Your task to perform on an android device: turn off priority inbox in the gmail app Image 0: 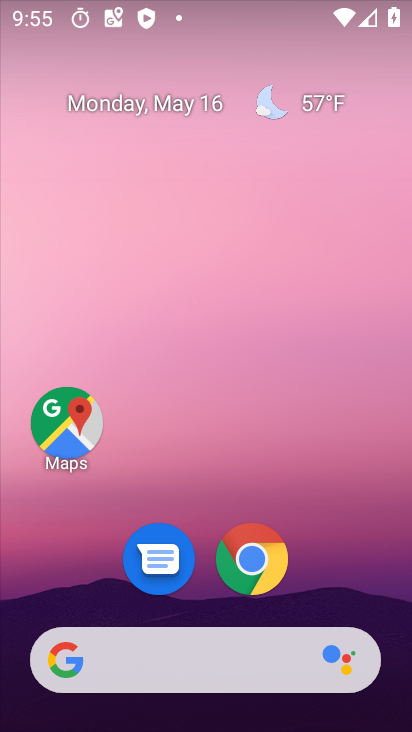
Step 0: drag from (355, 587) to (272, 113)
Your task to perform on an android device: turn off priority inbox in the gmail app Image 1: 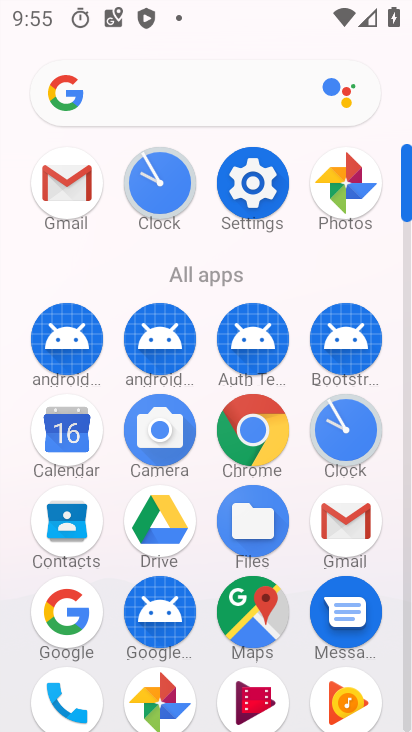
Step 1: click (346, 530)
Your task to perform on an android device: turn off priority inbox in the gmail app Image 2: 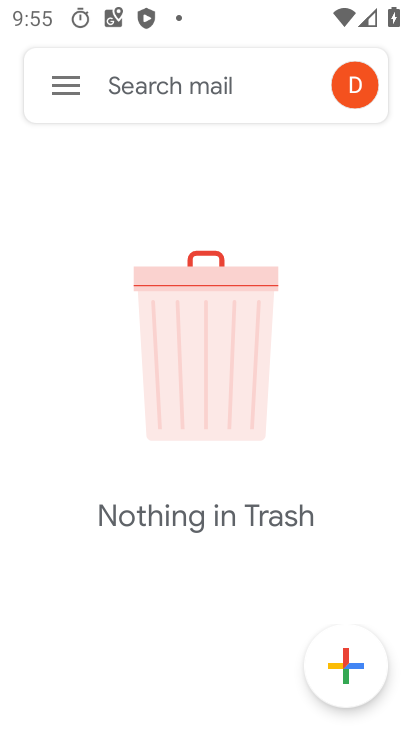
Step 2: click (49, 93)
Your task to perform on an android device: turn off priority inbox in the gmail app Image 3: 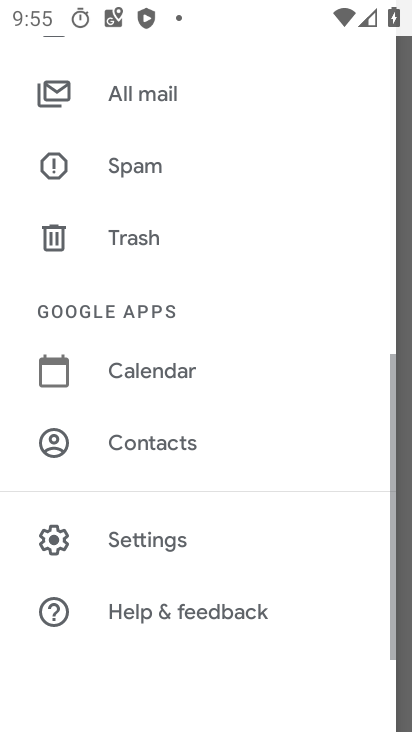
Step 3: click (178, 538)
Your task to perform on an android device: turn off priority inbox in the gmail app Image 4: 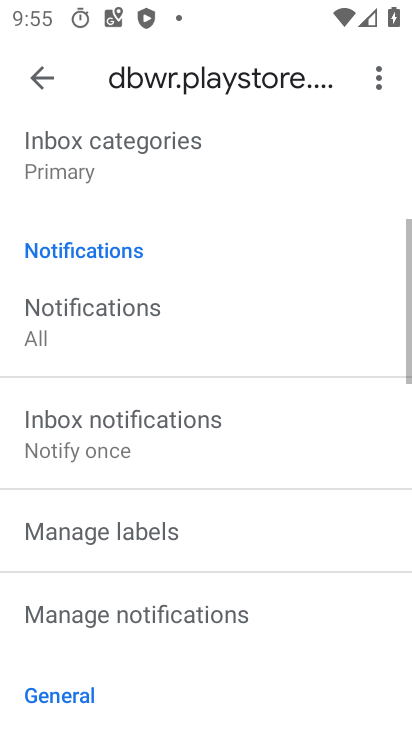
Step 4: drag from (212, 539) to (180, 676)
Your task to perform on an android device: turn off priority inbox in the gmail app Image 5: 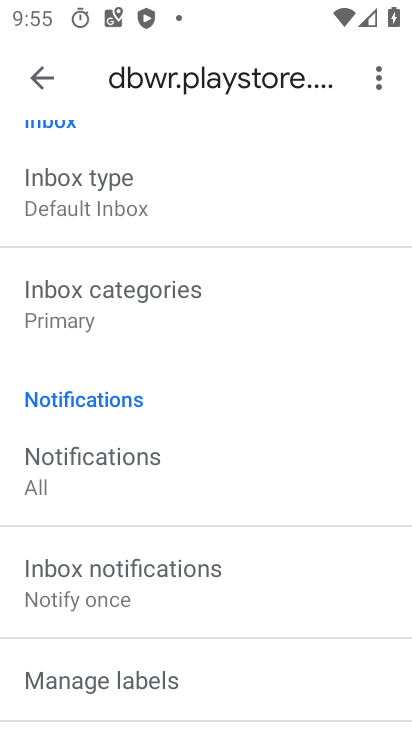
Step 5: drag from (116, 275) to (172, 613)
Your task to perform on an android device: turn off priority inbox in the gmail app Image 6: 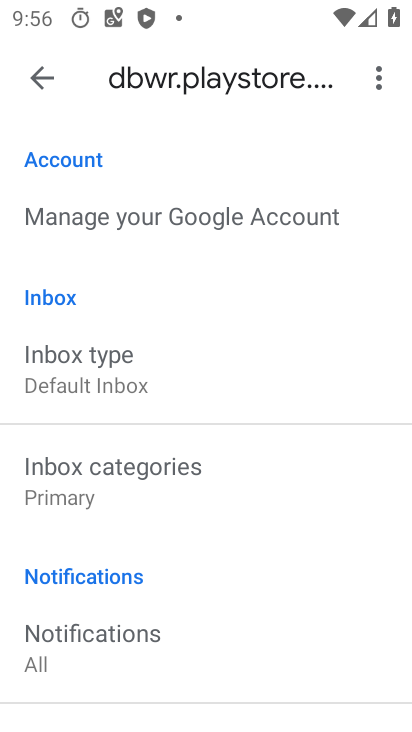
Step 6: click (145, 474)
Your task to perform on an android device: turn off priority inbox in the gmail app Image 7: 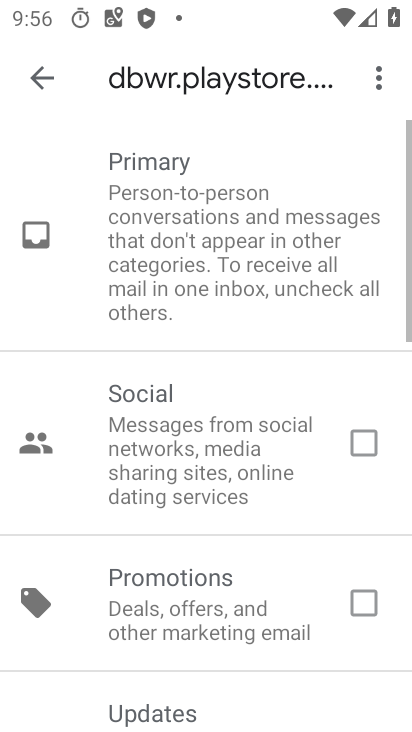
Step 7: task complete